Your task to perform on an android device: delete a single message in the gmail app Image 0: 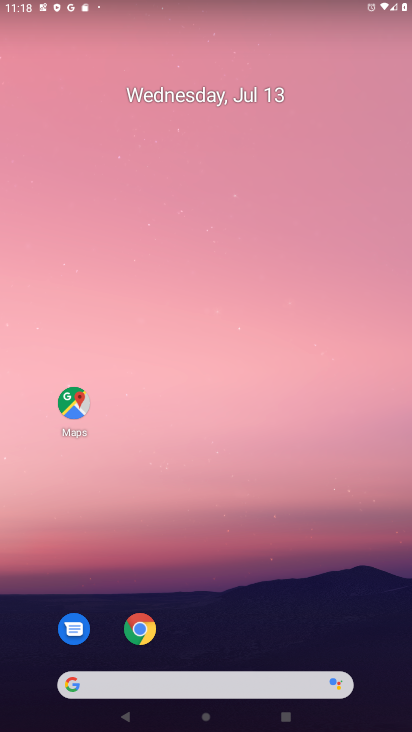
Step 0: drag from (258, 599) to (200, 128)
Your task to perform on an android device: delete a single message in the gmail app Image 1: 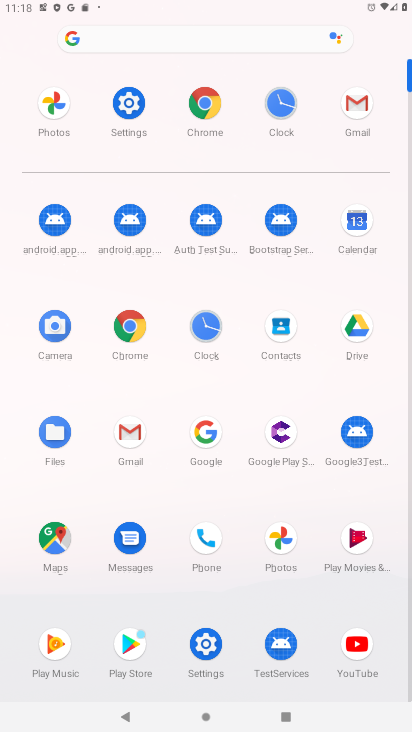
Step 1: click (350, 108)
Your task to perform on an android device: delete a single message in the gmail app Image 2: 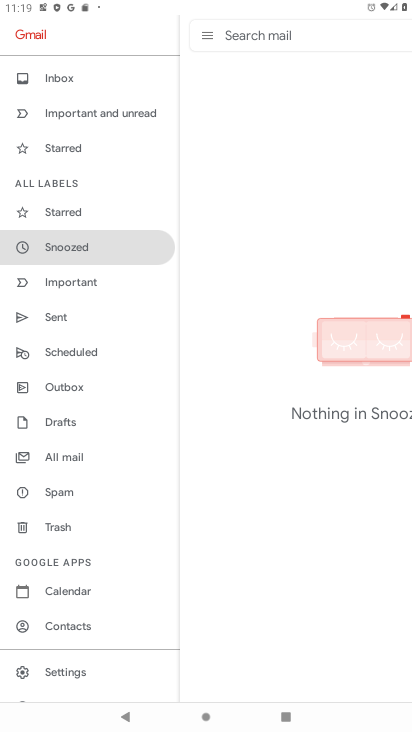
Step 2: click (91, 452)
Your task to perform on an android device: delete a single message in the gmail app Image 3: 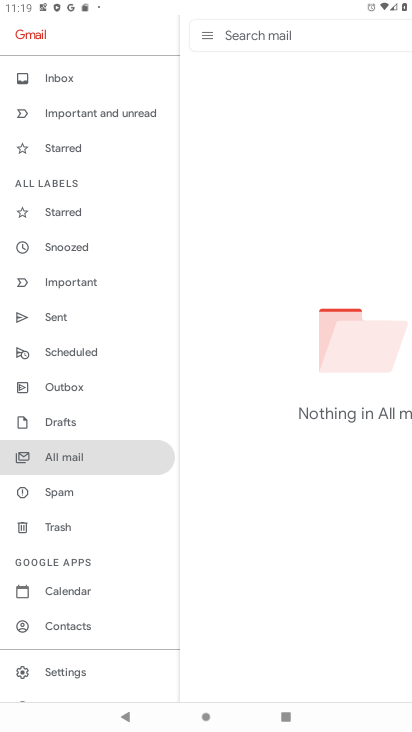
Step 3: task complete